Your task to perform on an android device: Open maps Image 0: 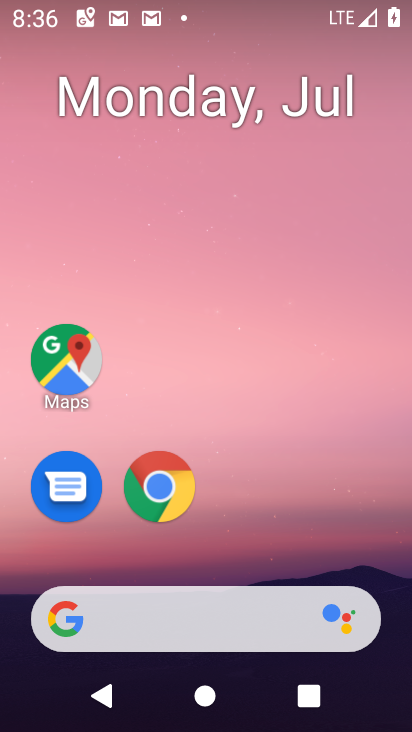
Step 0: drag from (343, 546) to (343, 77)
Your task to perform on an android device: Open maps Image 1: 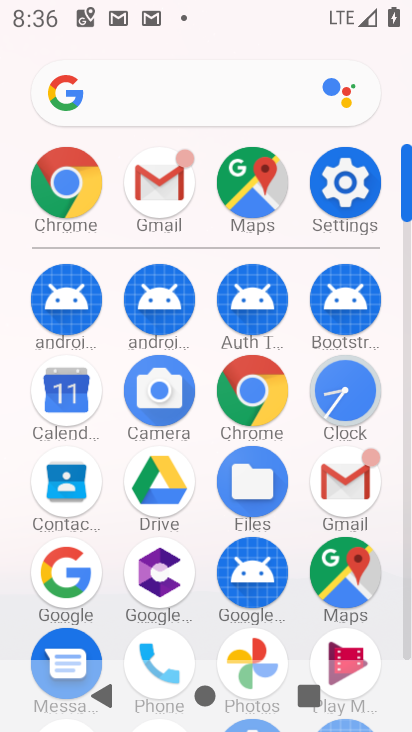
Step 1: click (352, 569)
Your task to perform on an android device: Open maps Image 2: 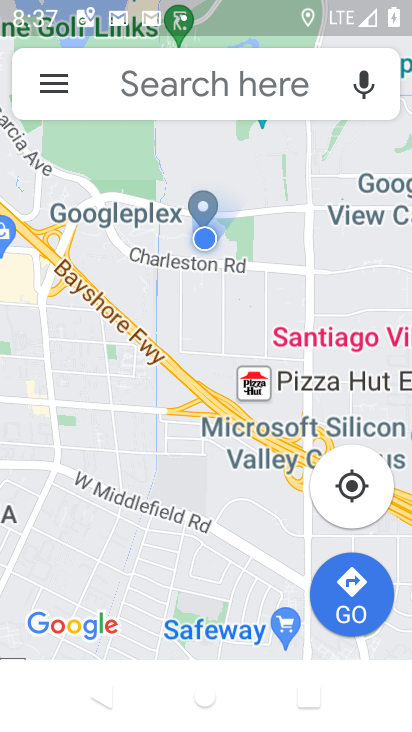
Step 2: task complete